Your task to perform on an android device: toggle data saver in the chrome app Image 0: 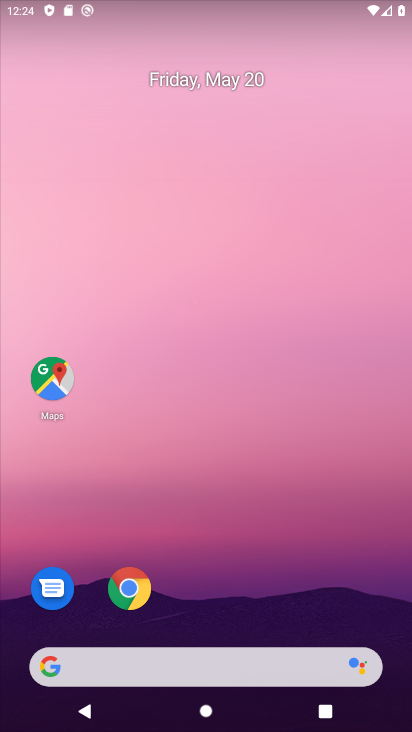
Step 0: click (134, 587)
Your task to perform on an android device: toggle data saver in the chrome app Image 1: 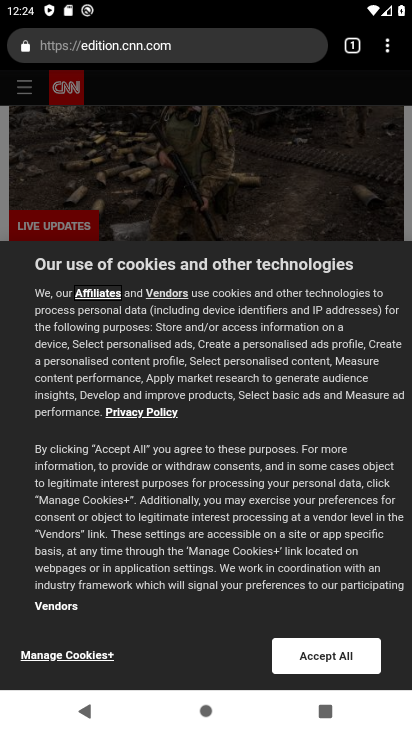
Step 1: click (390, 49)
Your task to perform on an android device: toggle data saver in the chrome app Image 2: 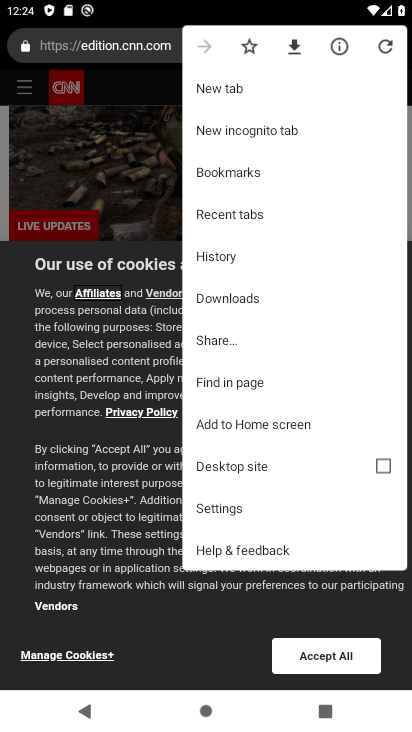
Step 2: click (227, 508)
Your task to perform on an android device: toggle data saver in the chrome app Image 3: 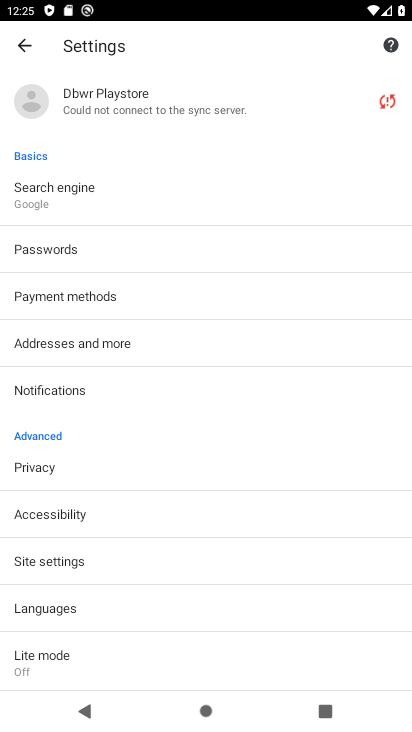
Step 3: click (41, 637)
Your task to perform on an android device: toggle data saver in the chrome app Image 4: 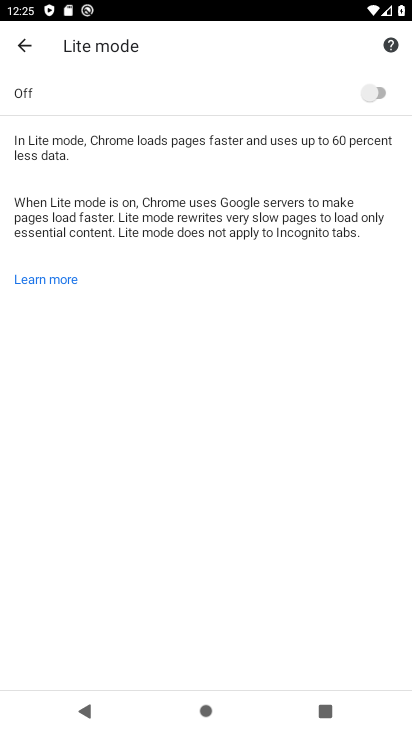
Step 4: click (379, 95)
Your task to perform on an android device: toggle data saver in the chrome app Image 5: 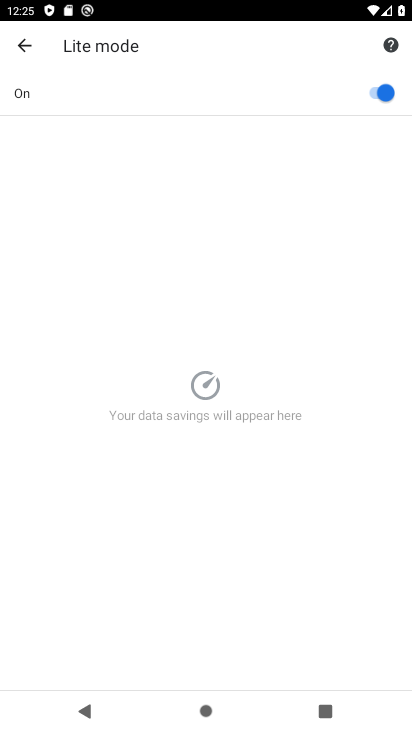
Step 5: task complete